Your task to perform on an android device: Clear all items from cart on walmart.com. Add "logitech g pro" to the cart on walmart.com, then select checkout. Image 0: 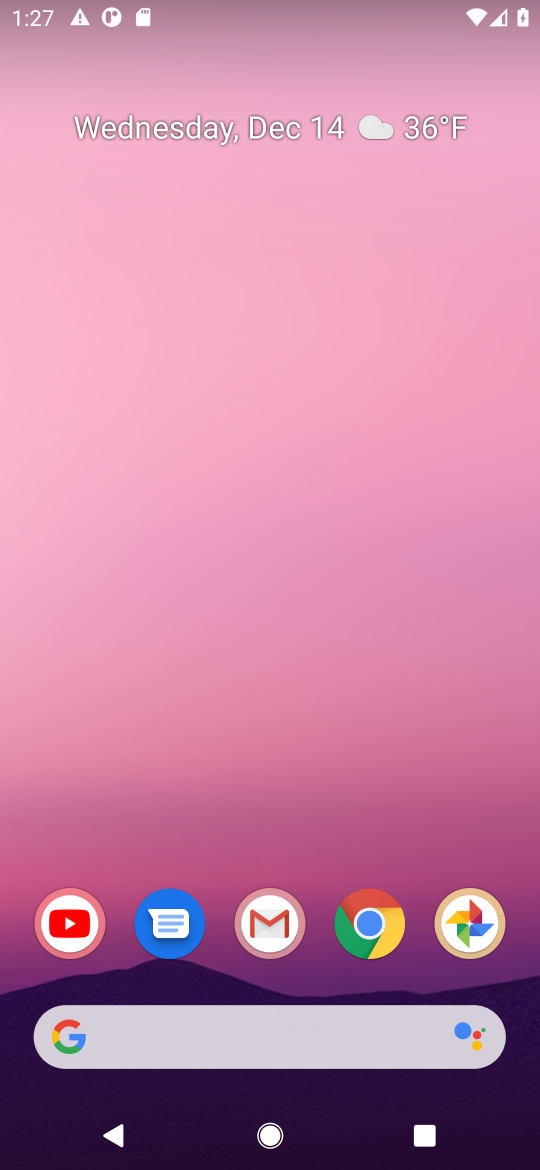
Step 0: click (251, 1043)
Your task to perform on an android device: Clear all items from cart on walmart.com. Add "logitech g pro" to the cart on walmart.com, then select checkout. Image 1: 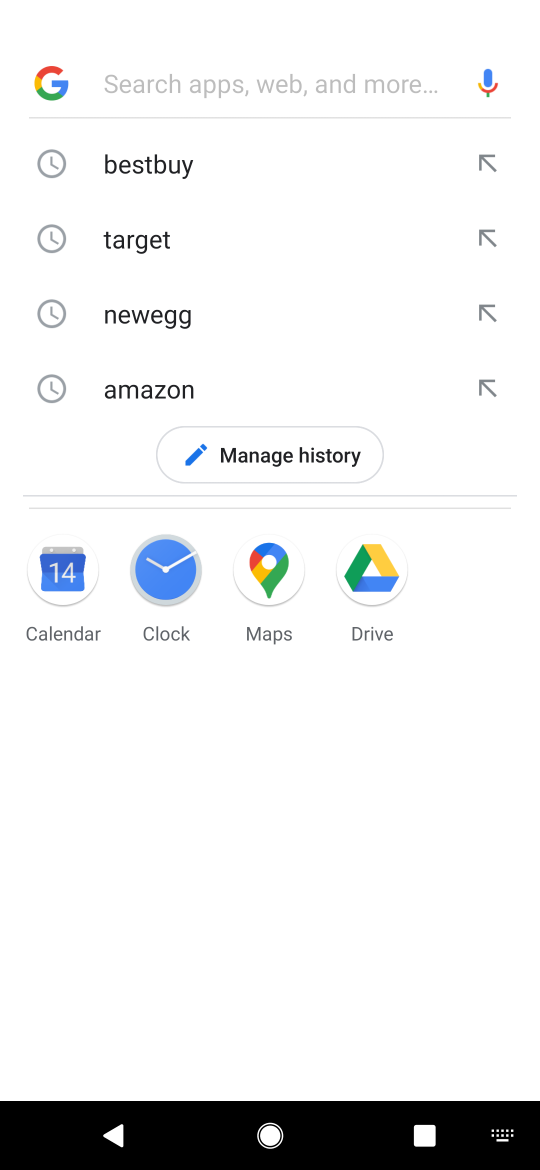
Step 1: type "walmart"
Your task to perform on an android device: Clear all items from cart on walmart.com. Add "logitech g pro" to the cart on walmart.com, then select checkout. Image 2: 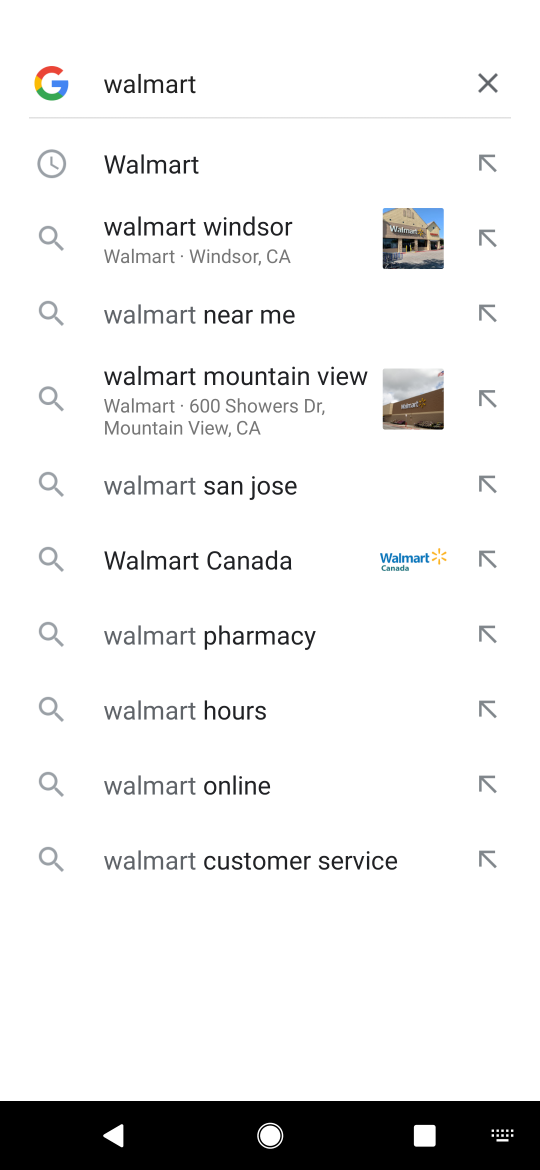
Step 2: click (236, 188)
Your task to perform on an android device: Clear all items from cart on walmart.com. Add "logitech g pro" to the cart on walmart.com, then select checkout. Image 3: 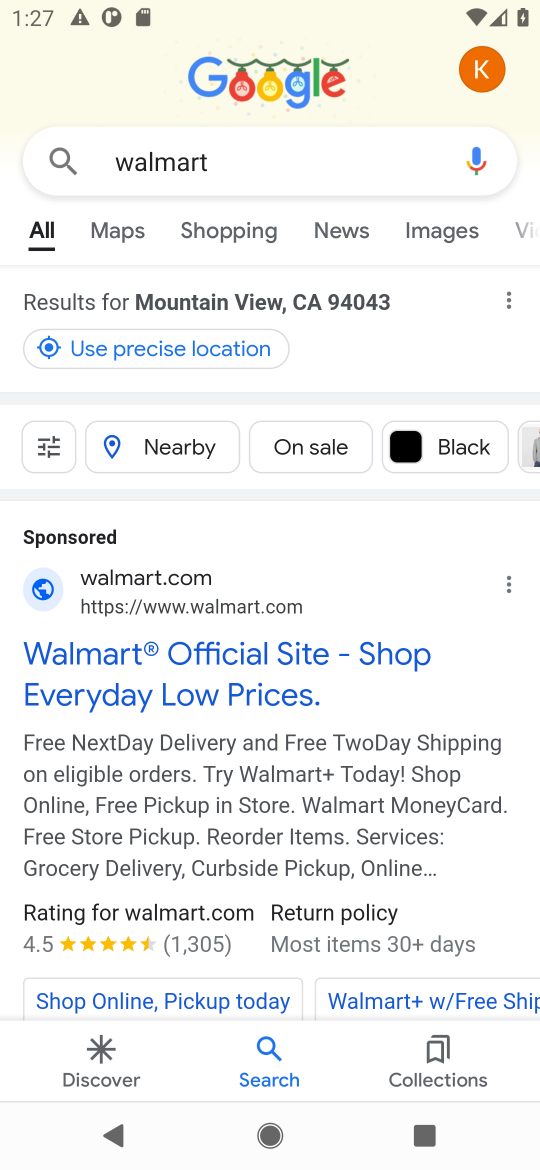
Step 3: click (106, 702)
Your task to perform on an android device: Clear all items from cart on walmart.com. Add "logitech g pro" to the cart on walmart.com, then select checkout. Image 4: 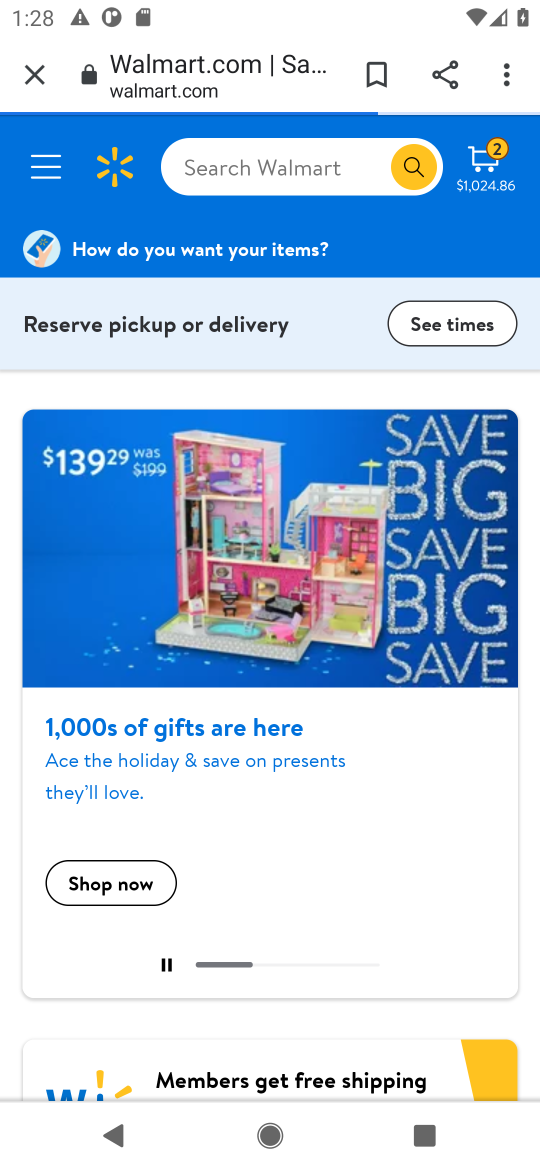
Step 4: click (302, 149)
Your task to perform on an android device: Clear all items from cart on walmart.com. Add "logitech g pro" to the cart on walmart.com, then select checkout. Image 5: 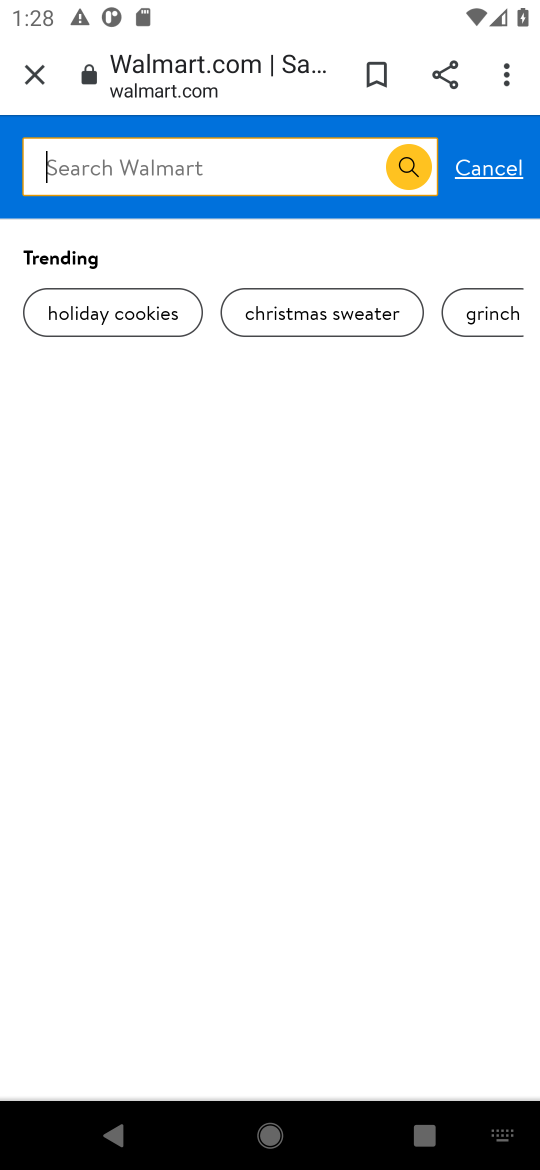
Step 5: type "logitech g pro"
Your task to perform on an android device: Clear all items from cart on walmart.com. Add "logitech g pro" to the cart on walmart.com, then select checkout. Image 6: 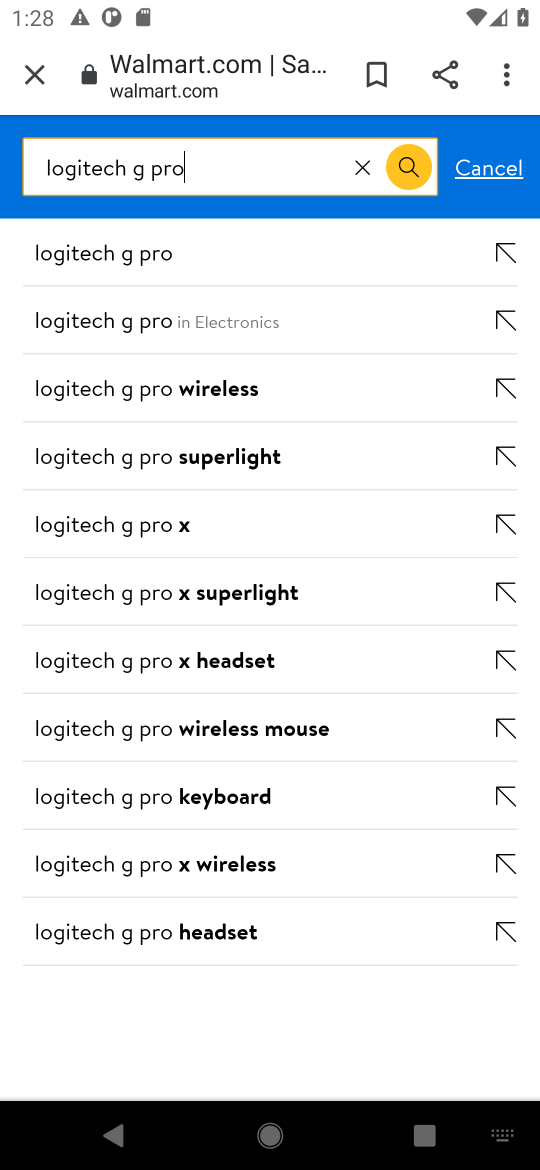
Step 6: click (293, 241)
Your task to perform on an android device: Clear all items from cart on walmart.com. Add "logitech g pro" to the cart on walmart.com, then select checkout. Image 7: 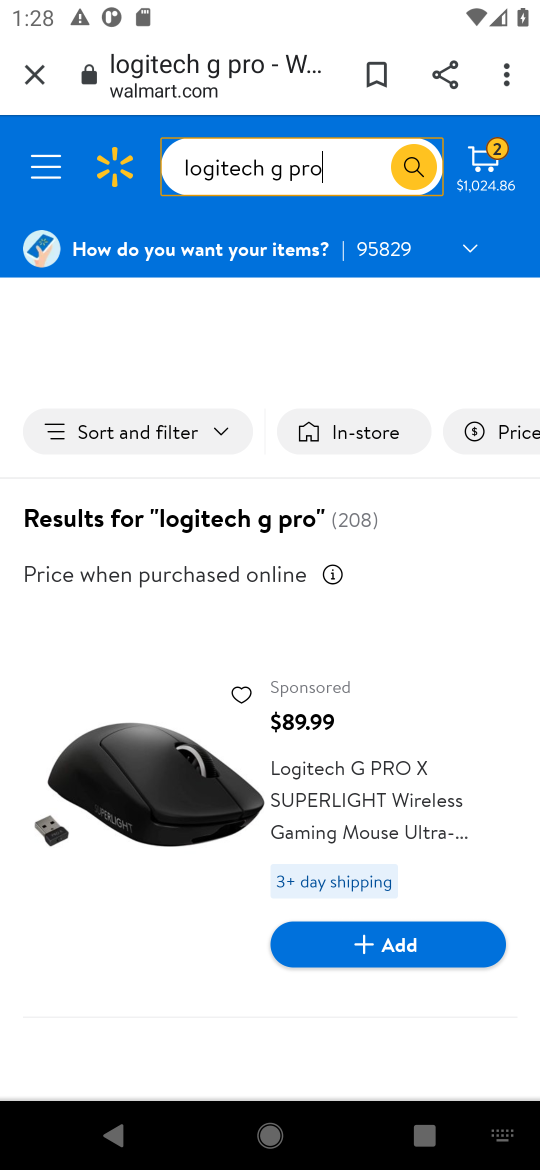
Step 7: click (420, 918)
Your task to perform on an android device: Clear all items from cart on walmart.com. Add "logitech g pro" to the cart on walmart.com, then select checkout. Image 8: 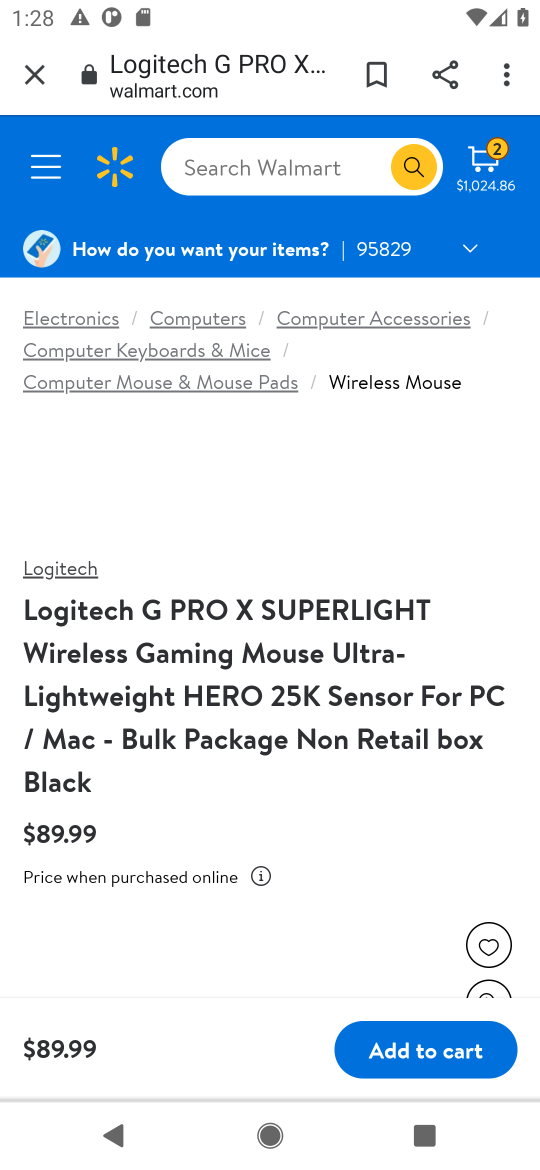
Step 8: click (374, 1044)
Your task to perform on an android device: Clear all items from cart on walmart.com. Add "logitech g pro" to the cart on walmart.com, then select checkout. Image 9: 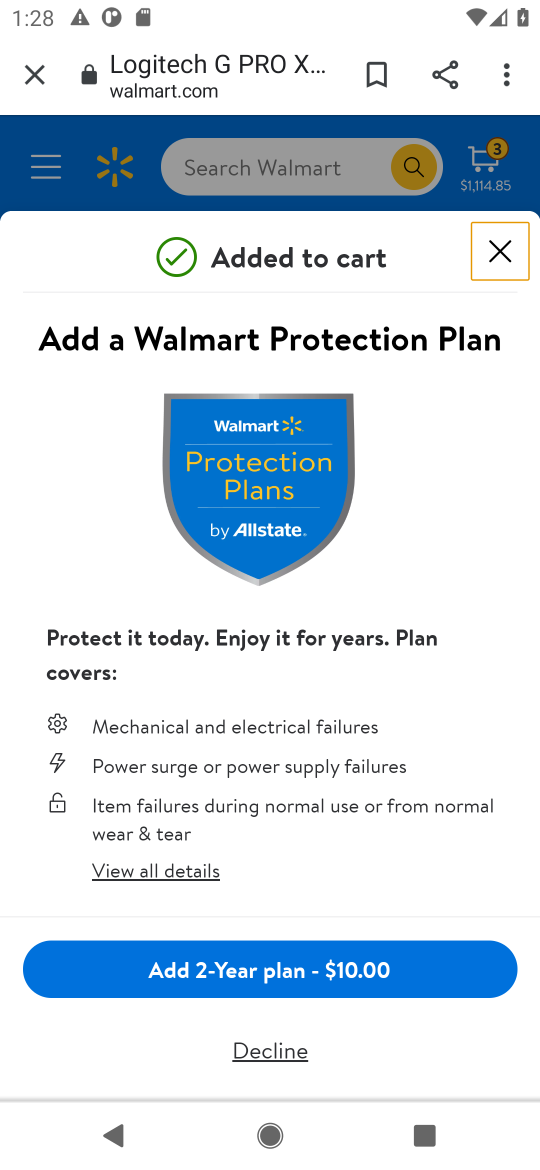
Step 9: task complete